Your task to perform on an android device: Clear the cart on amazon. Search for macbook pro 13 inch on amazon, select the first entry, and add it to the cart. Image 0: 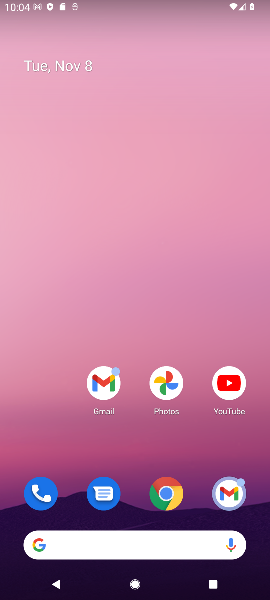
Step 0: click (165, 498)
Your task to perform on an android device: Clear the cart on amazon. Search for macbook pro 13 inch on amazon, select the first entry, and add it to the cart. Image 1: 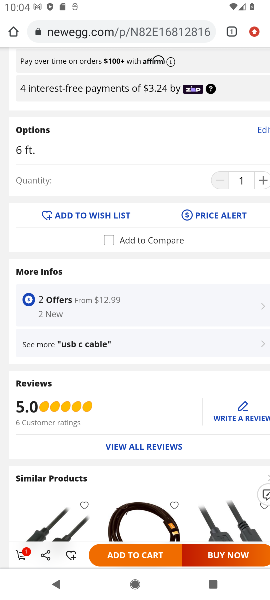
Step 1: click (134, 34)
Your task to perform on an android device: Clear the cart on amazon. Search for macbook pro 13 inch on amazon, select the first entry, and add it to the cart. Image 2: 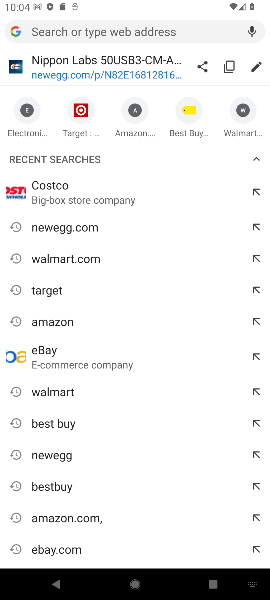
Step 2: click (133, 110)
Your task to perform on an android device: Clear the cart on amazon. Search for macbook pro 13 inch on amazon, select the first entry, and add it to the cart. Image 3: 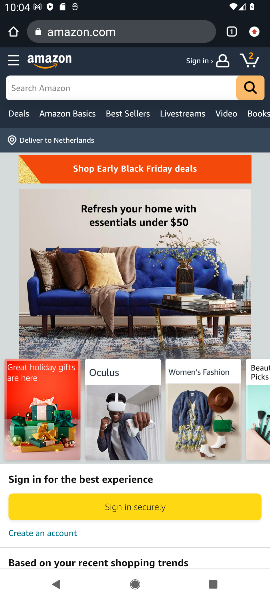
Step 3: click (251, 60)
Your task to perform on an android device: Clear the cart on amazon. Search for macbook pro 13 inch on amazon, select the first entry, and add it to the cart. Image 4: 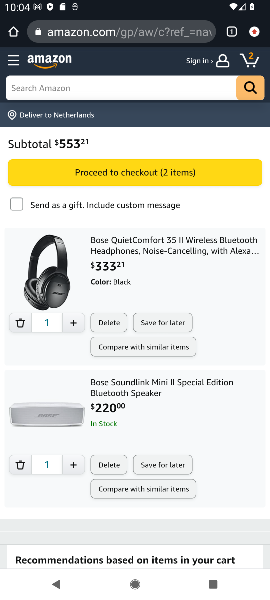
Step 4: click (102, 322)
Your task to perform on an android device: Clear the cart on amazon. Search for macbook pro 13 inch on amazon, select the first entry, and add it to the cart. Image 5: 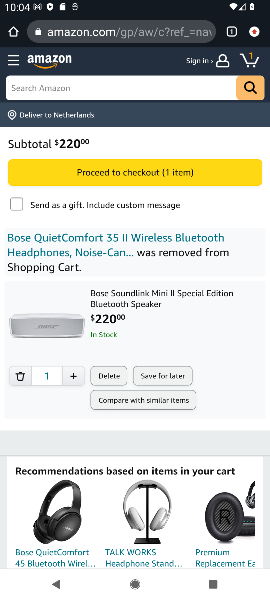
Step 5: click (105, 371)
Your task to perform on an android device: Clear the cart on amazon. Search for macbook pro 13 inch on amazon, select the first entry, and add it to the cart. Image 6: 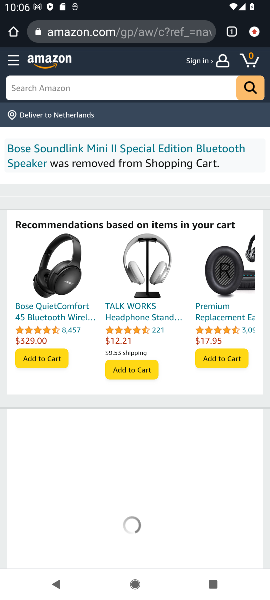
Step 6: click (252, 62)
Your task to perform on an android device: Clear the cart on amazon. Search for macbook pro 13 inch on amazon, select the first entry, and add it to the cart. Image 7: 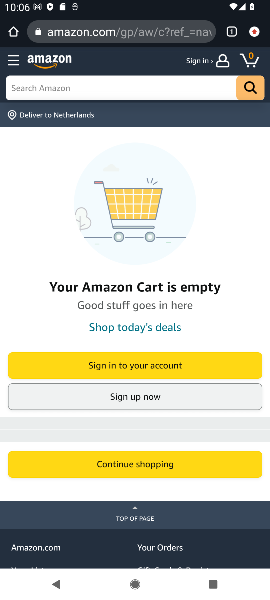
Step 7: click (68, 84)
Your task to perform on an android device: Clear the cart on amazon. Search for macbook pro 13 inch on amazon, select the first entry, and add it to the cart. Image 8: 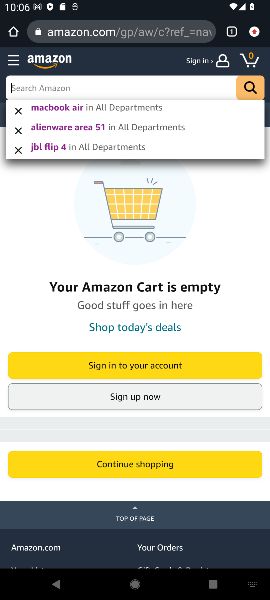
Step 8: type "macbook pro 13 inch"
Your task to perform on an android device: Clear the cart on amazon. Search for macbook pro 13 inch on amazon, select the first entry, and add it to the cart. Image 9: 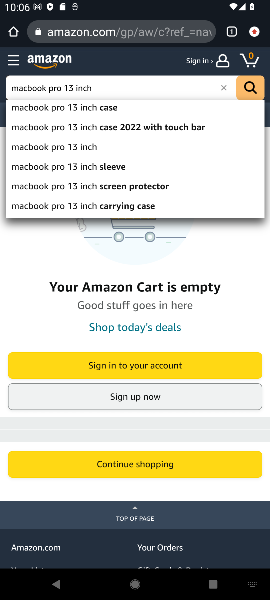
Step 9: click (62, 150)
Your task to perform on an android device: Clear the cart on amazon. Search for macbook pro 13 inch on amazon, select the first entry, and add it to the cart. Image 10: 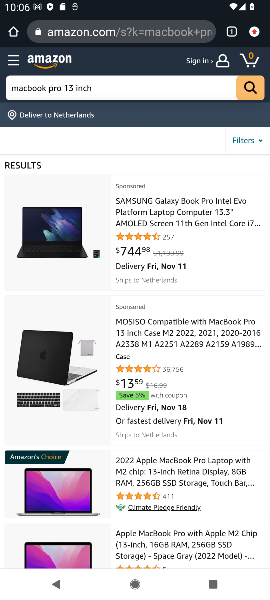
Step 10: task complete